Your task to perform on an android device: Open privacy settings Image 0: 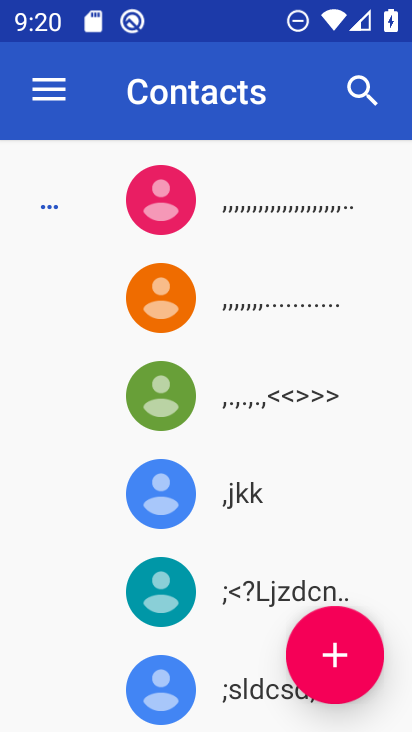
Step 0: press home button
Your task to perform on an android device: Open privacy settings Image 1: 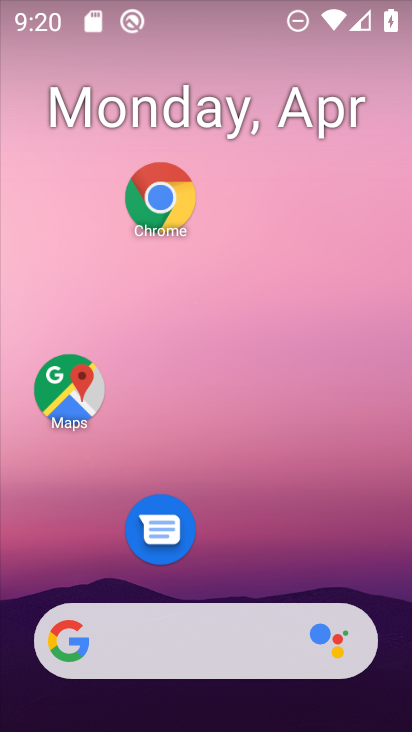
Step 1: drag from (235, 476) to (317, 14)
Your task to perform on an android device: Open privacy settings Image 2: 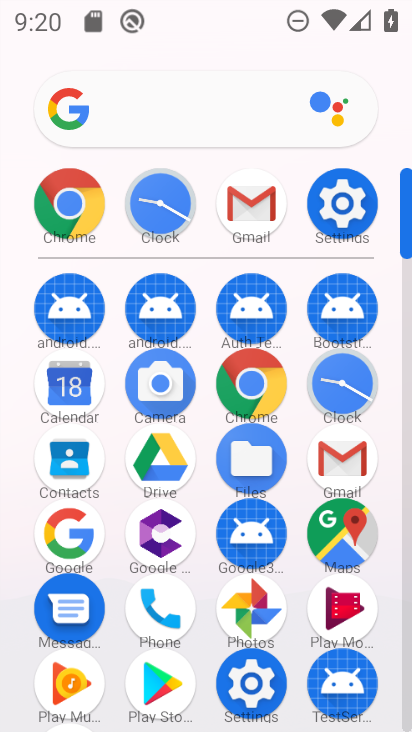
Step 2: click (325, 190)
Your task to perform on an android device: Open privacy settings Image 3: 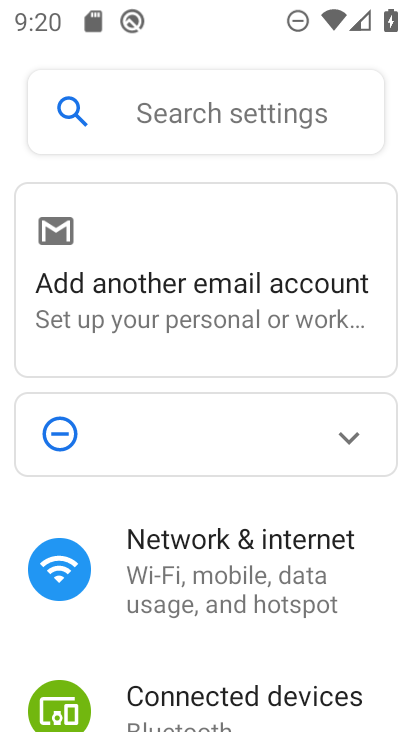
Step 3: drag from (238, 641) to (337, 60)
Your task to perform on an android device: Open privacy settings Image 4: 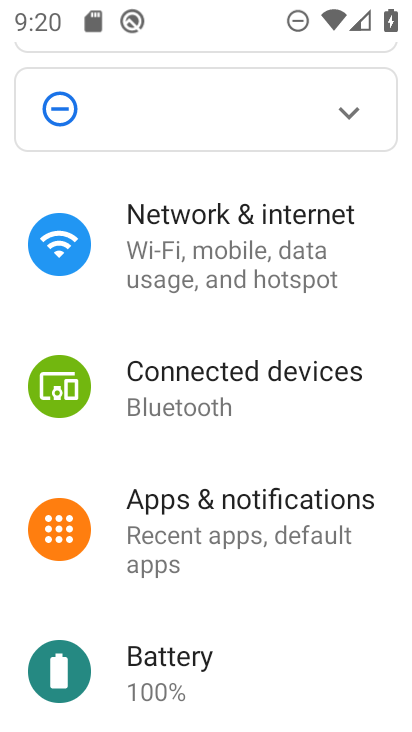
Step 4: drag from (227, 620) to (332, 65)
Your task to perform on an android device: Open privacy settings Image 5: 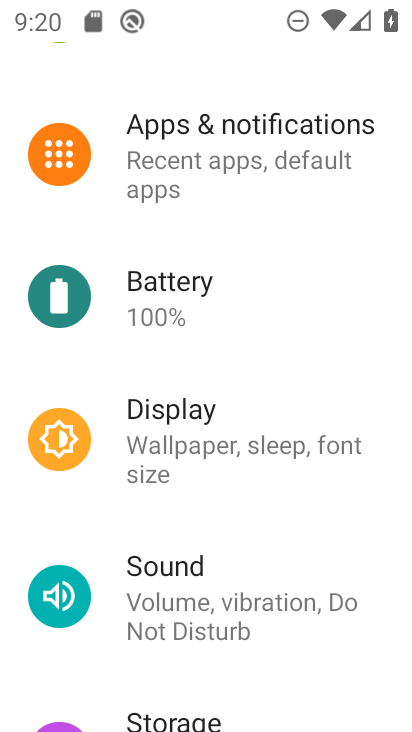
Step 5: drag from (192, 531) to (301, 107)
Your task to perform on an android device: Open privacy settings Image 6: 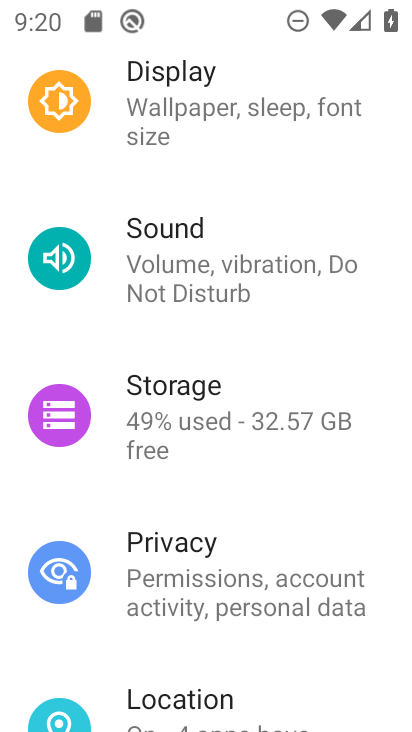
Step 6: click (190, 563)
Your task to perform on an android device: Open privacy settings Image 7: 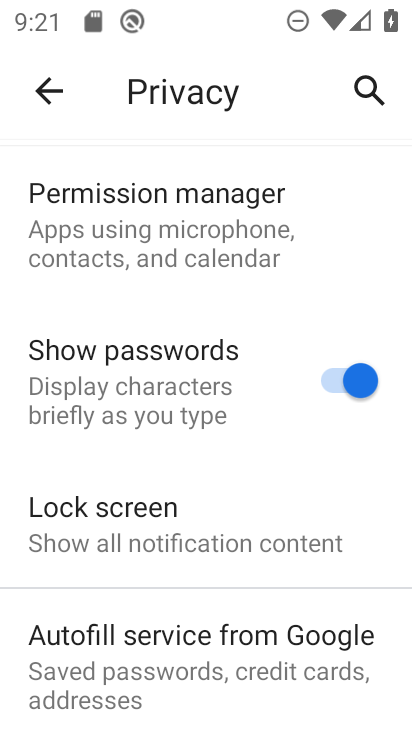
Step 7: task complete